Your task to perform on an android device: read, delete, or share a saved page in the chrome app Image 0: 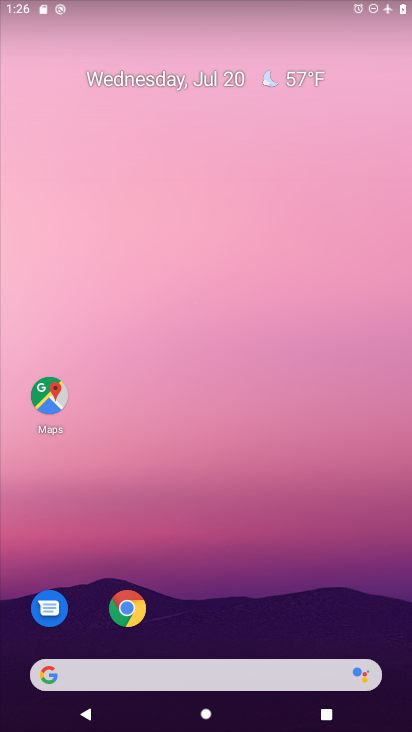
Step 0: click (118, 600)
Your task to perform on an android device: read, delete, or share a saved page in the chrome app Image 1: 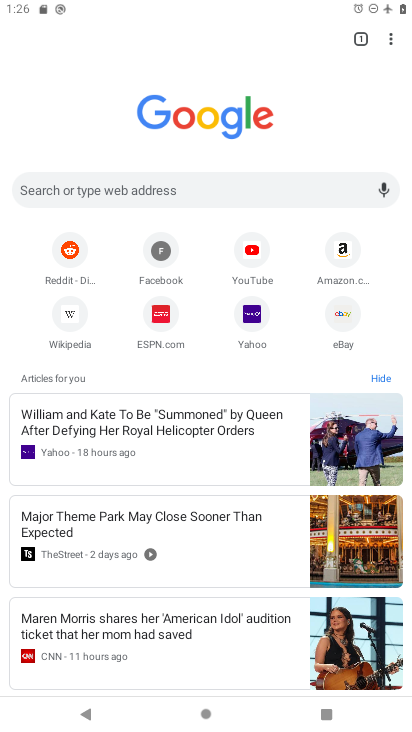
Step 1: click (390, 38)
Your task to perform on an android device: read, delete, or share a saved page in the chrome app Image 2: 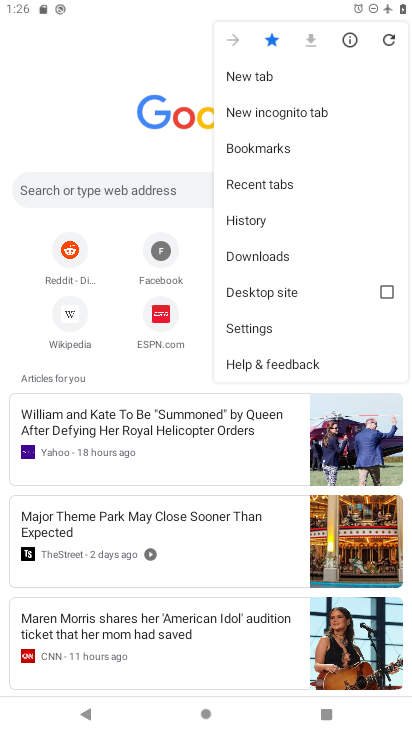
Step 2: click (292, 250)
Your task to perform on an android device: read, delete, or share a saved page in the chrome app Image 3: 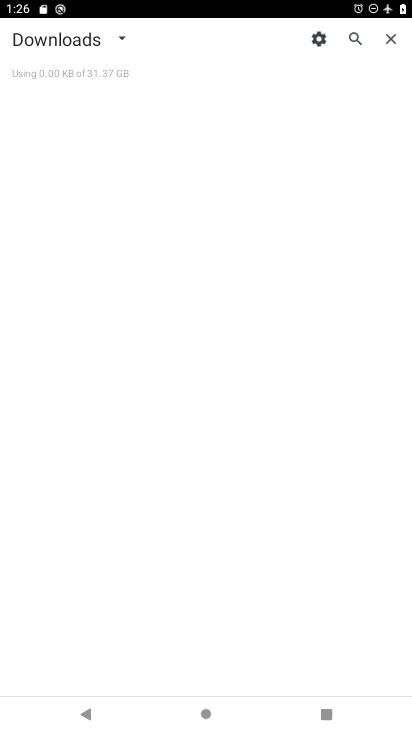
Step 3: task complete